Your task to perform on an android device: turn on airplane mode Image 0: 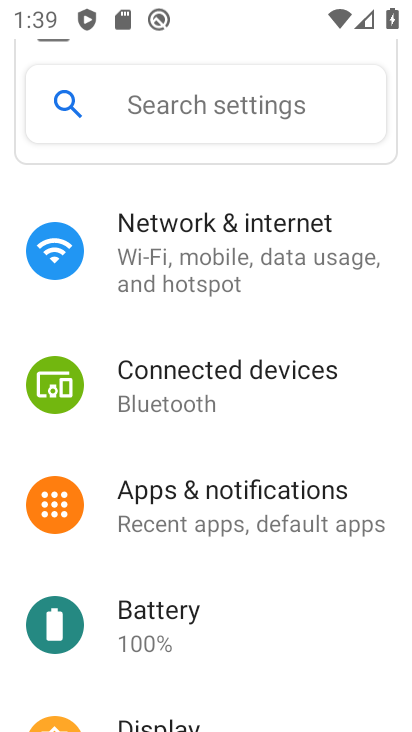
Step 0: click (332, 259)
Your task to perform on an android device: turn on airplane mode Image 1: 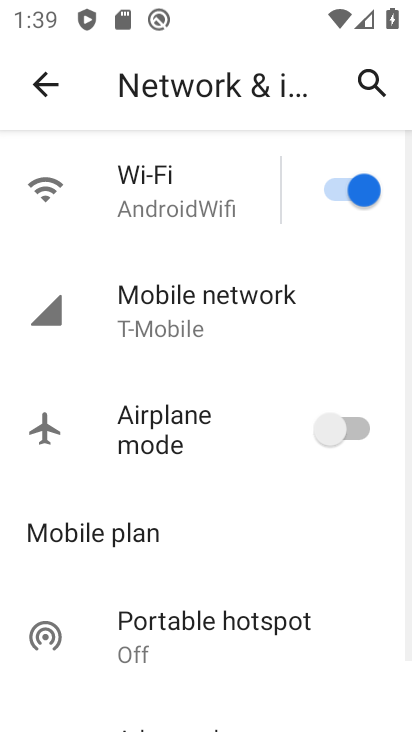
Step 1: click (332, 446)
Your task to perform on an android device: turn on airplane mode Image 2: 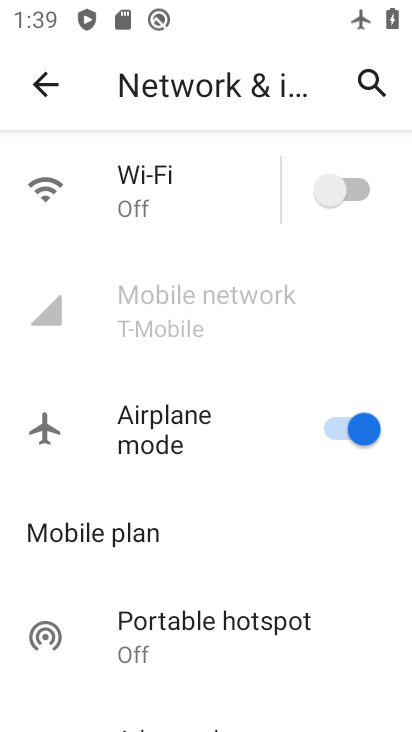
Step 2: task complete